Your task to perform on an android device: Open eBay Image 0: 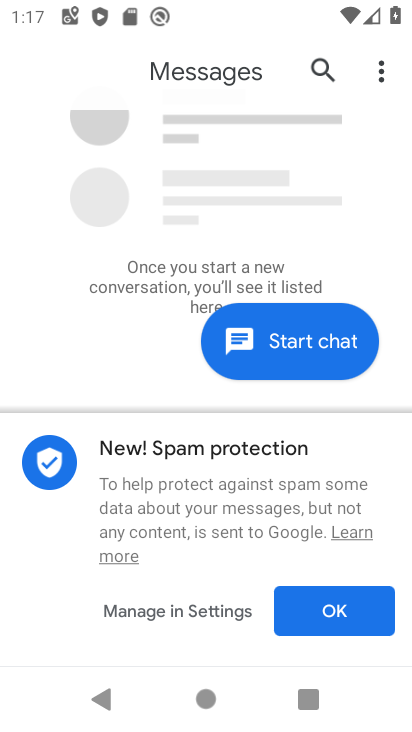
Step 0: press home button
Your task to perform on an android device: Open eBay Image 1: 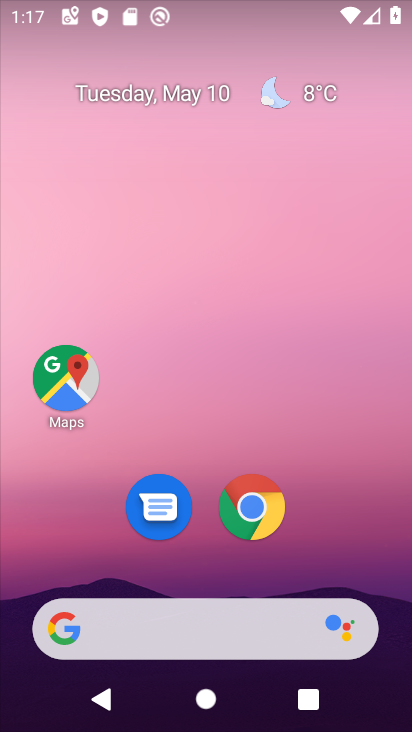
Step 1: drag from (275, 649) to (191, 319)
Your task to perform on an android device: Open eBay Image 2: 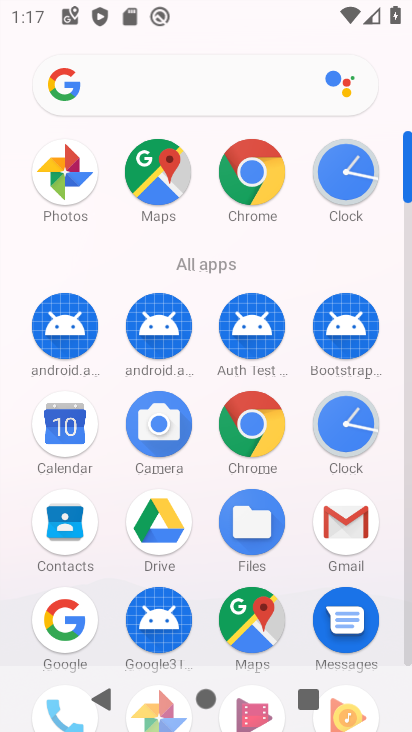
Step 2: click (235, 189)
Your task to perform on an android device: Open eBay Image 3: 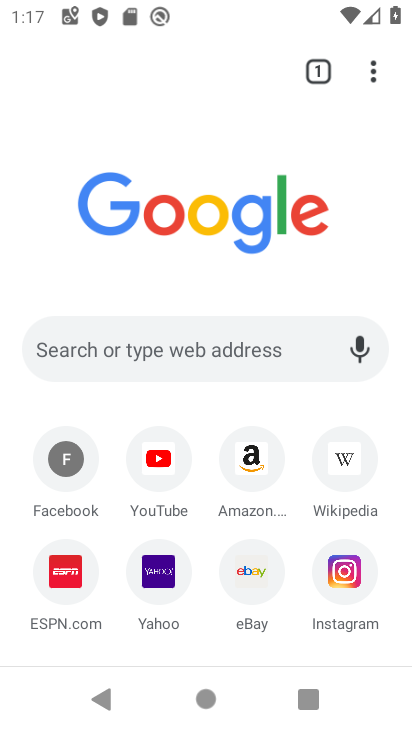
Step 3: click (263, 571)
Your task to perform on an android device: Open eBay Image 4: 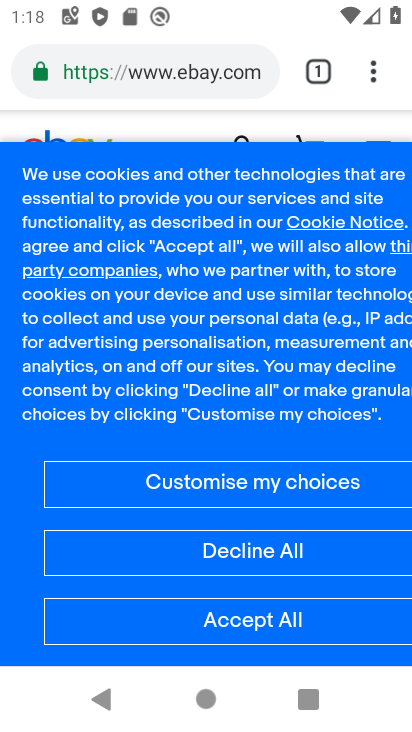
Step 4: click (316, 625)
Your task to perform on an android device: Open eBay Image 5: 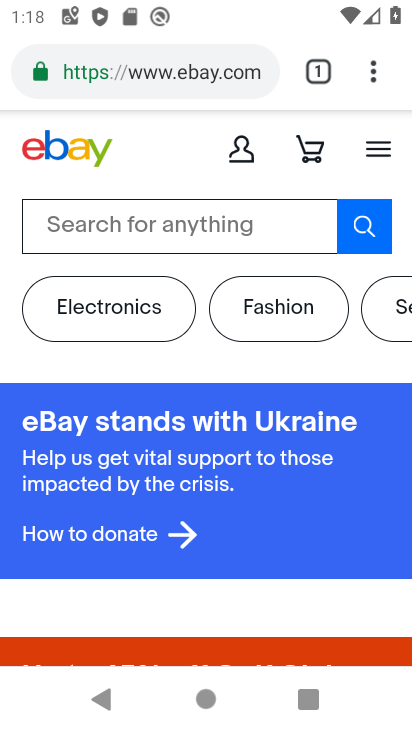
Step 5: task complete